Your task to perform on an android device: turn on the 12-hour format for clock Image 0: 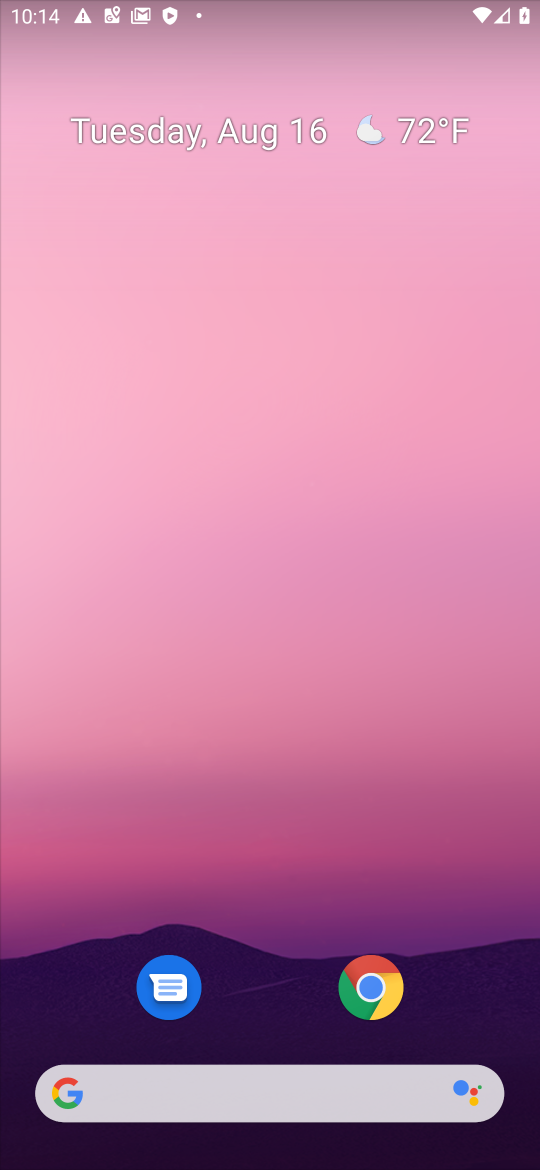
Step 0: drag from (43, 1043) to (203, 344)
Your task to perform on an android device: turn on the 12-hour format for clock Image 1: 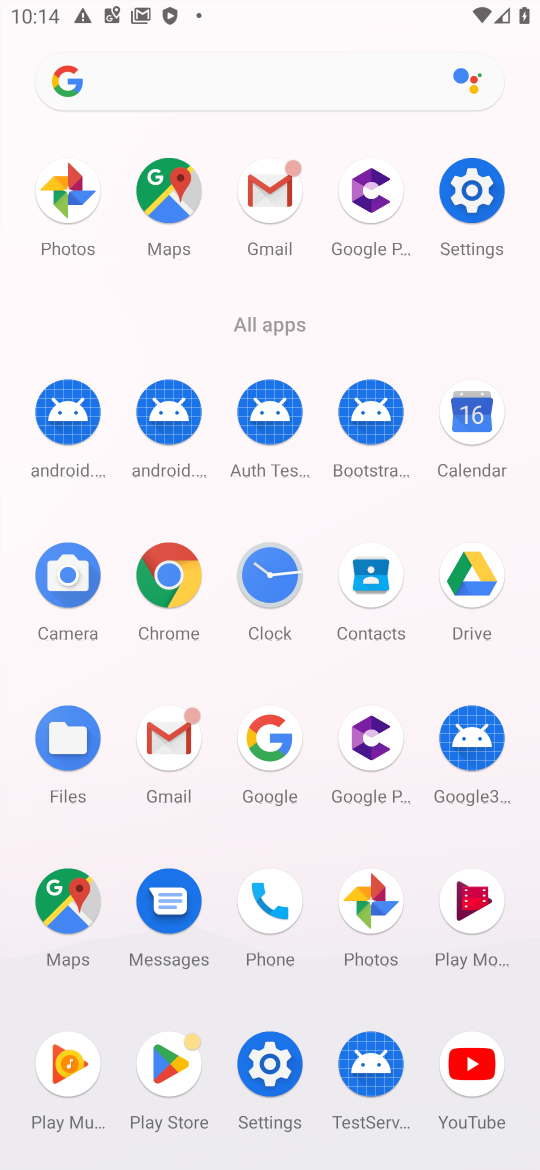
Step 1: click (252, 1070)
Your task to perform on an android device: turn on the 12-hour format for clock Image 2: 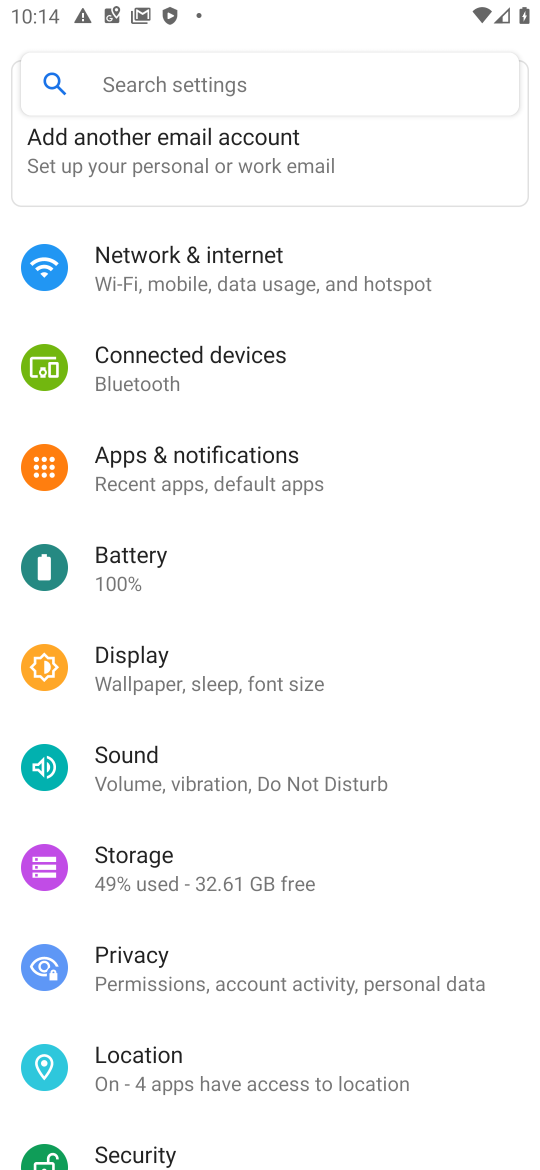
Step 2: press home button
Your task to perform on an android device: turn on the 12-hour format for clock Image 3: 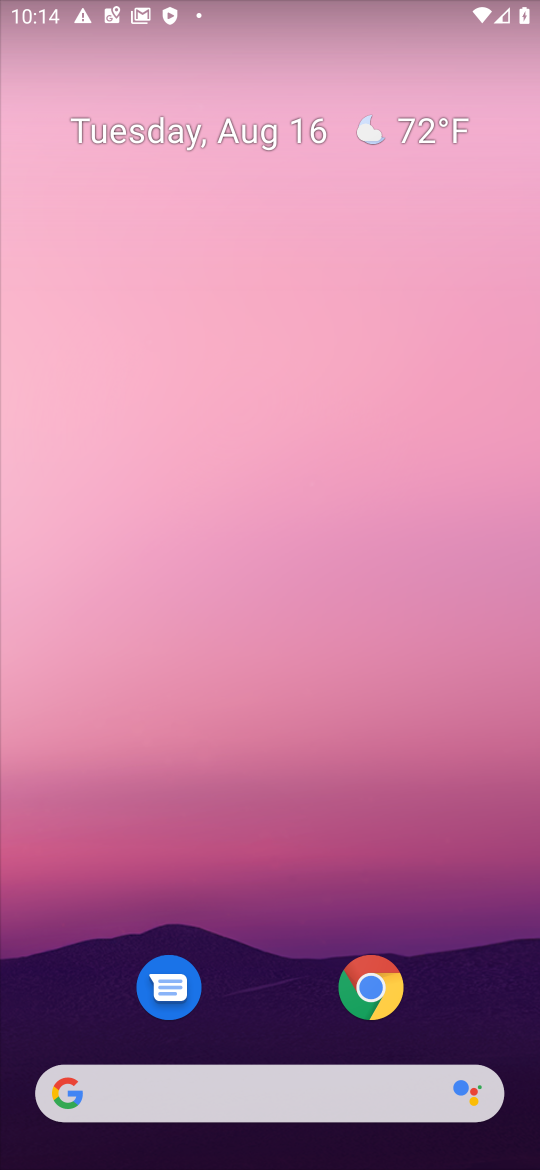
Step 3: drag from (22, 1120) to (224, 460)
Your task to perform on an android device: turn on the 12-hour format for clock Image 4: 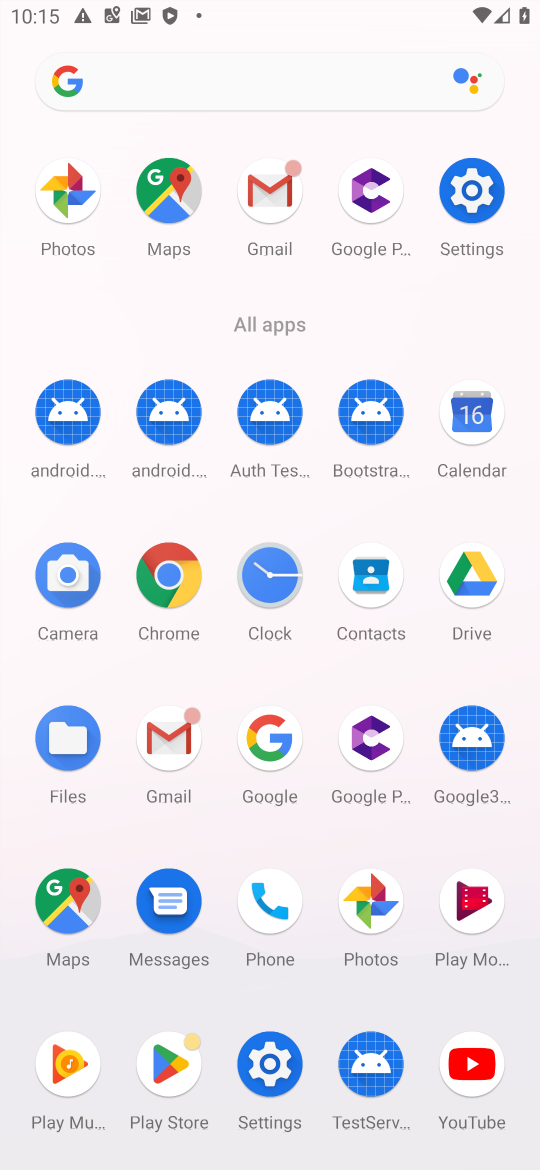
Step 4: click (259, 570)
Your task to perform on an android device: turn on the 12-hour format for clock Image 5: 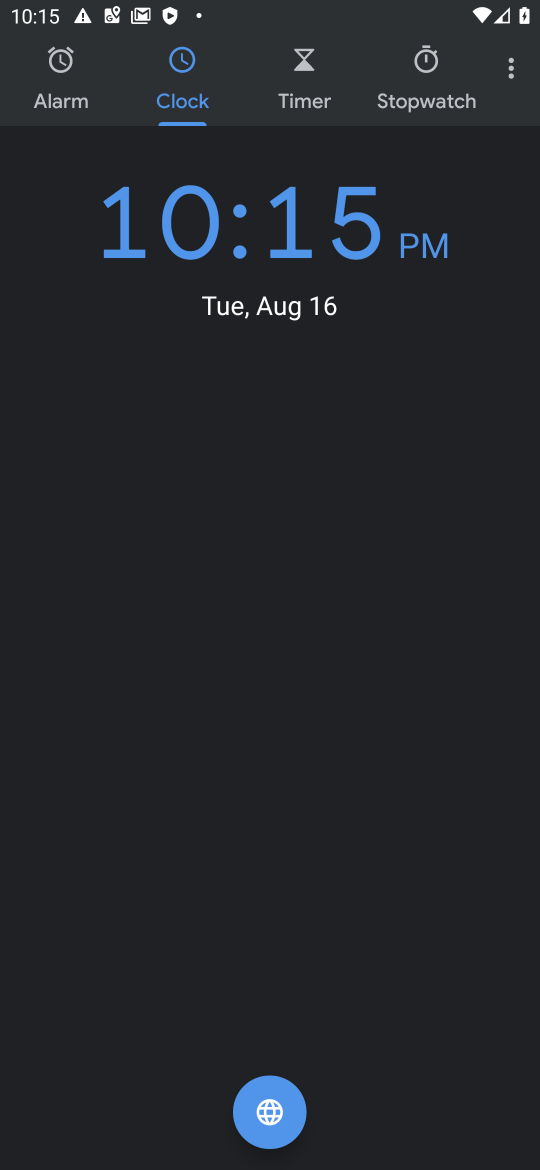
Step 5: click (510, 65)
Your task to perform on an android device: turn on the 12-hour format for clock Image 6: 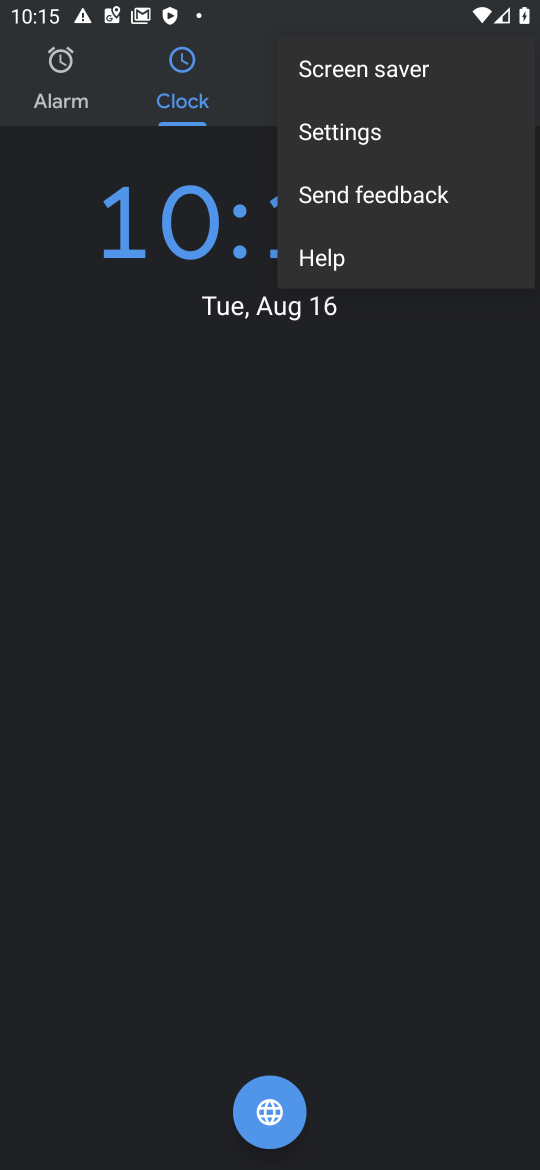
Step 6: click (359, 124)
Your task to perform on an android device: turn on the 12-hour format for clock Image 7: 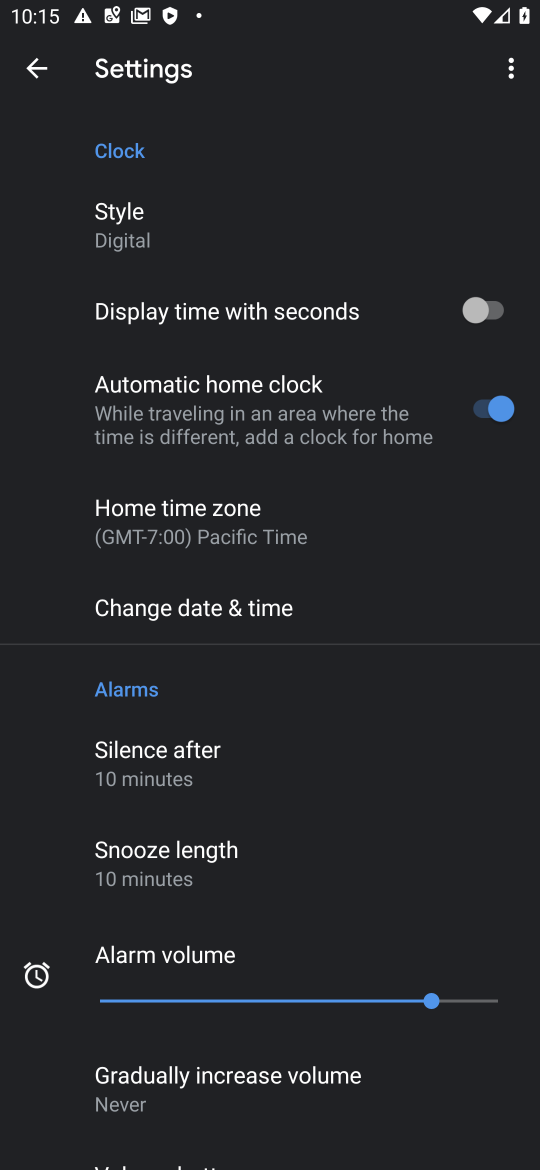
Step 7: click (220, 624)
Your task to perform on an android device: turn on the 12-hour format for clock Image 8: 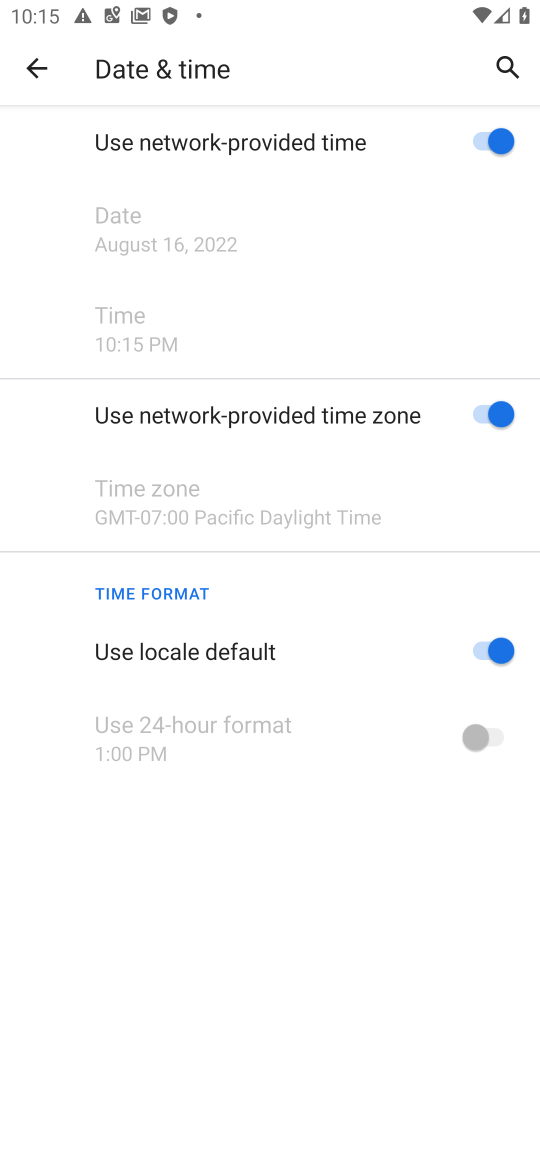
Step 8: task complete